Your task to perform on an android device: turn off javascript in the chrome app Image 0: 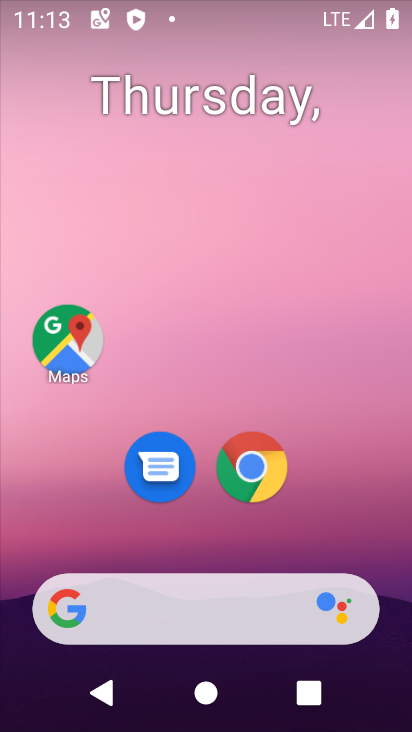
Step 0: click (264, 469)
Your task to perform on an android device: turn off javascript in the chrome app Image 1: 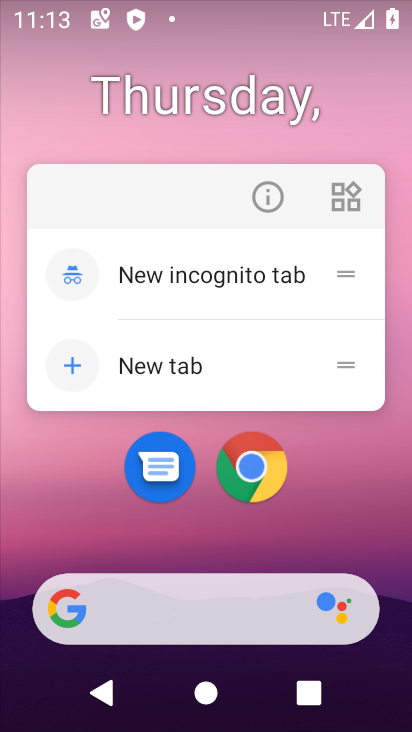
Step 1: click (260, 478)
Your task to perform on an android device: turn off javascript in the chrome app Image 2: 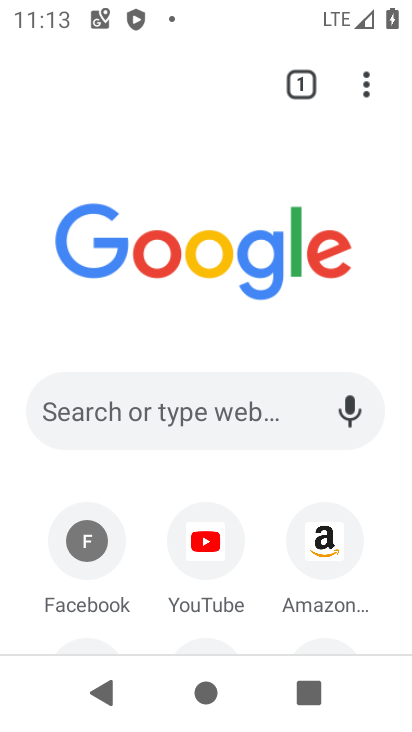
Step 2: drag from (368, 86) to (137, 502)
Your task to perform on an android device: turn off javascript in the chrome app Image 3: 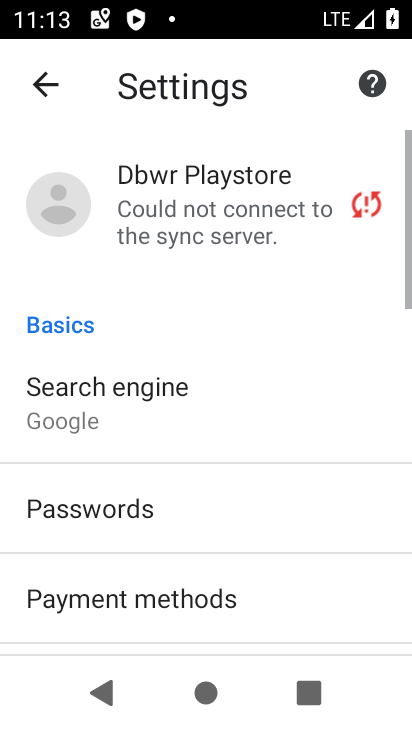
Step 3: drag from (150, 581) to (267, 103)
Your task to perform on an android device: turn off javascript in the chrome app Image 4: 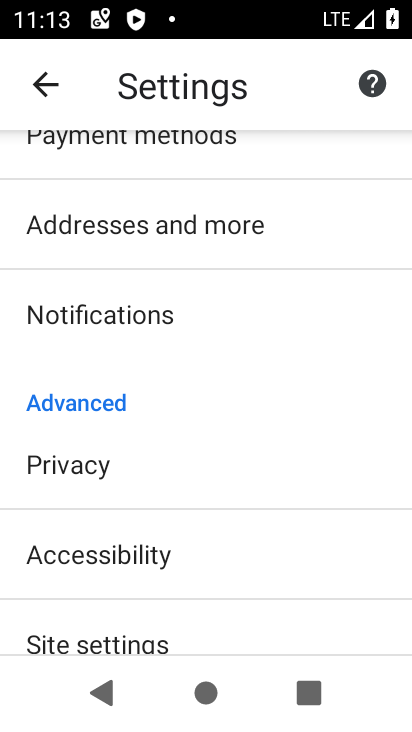
Step 4: click (119, 634)
Your task to perform on an android device: turn off javascript in the chrome app Image 5: 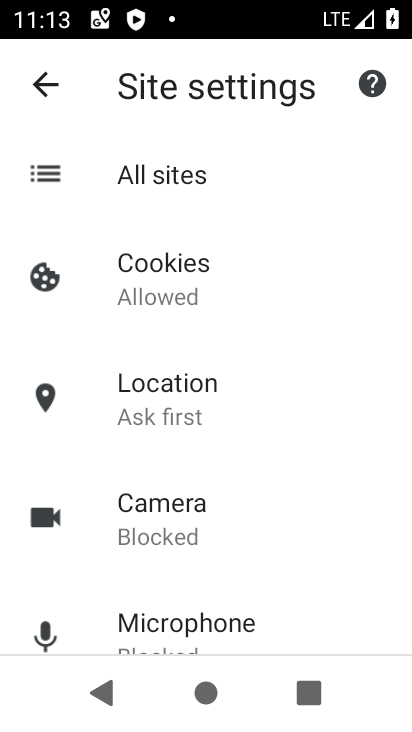
Step 5: drag from (175, 577) to (320, 70)
Your task to perform on an android device: turn off javascript in the chrome app Image 6: 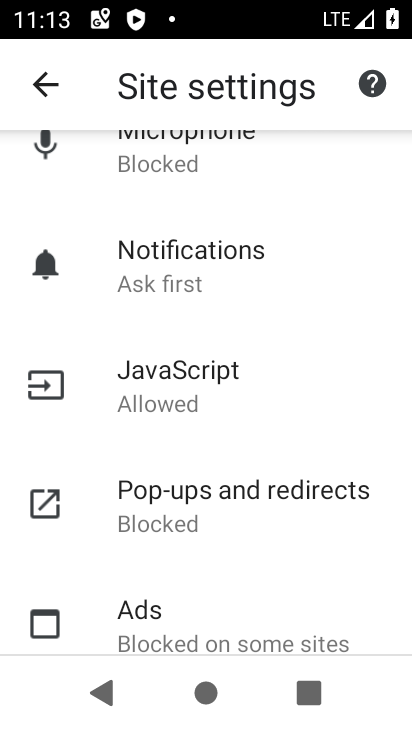
Step 6: click (184, 383)
Your task to perform on an android device: turn off javascript in the chrome app Image 7: 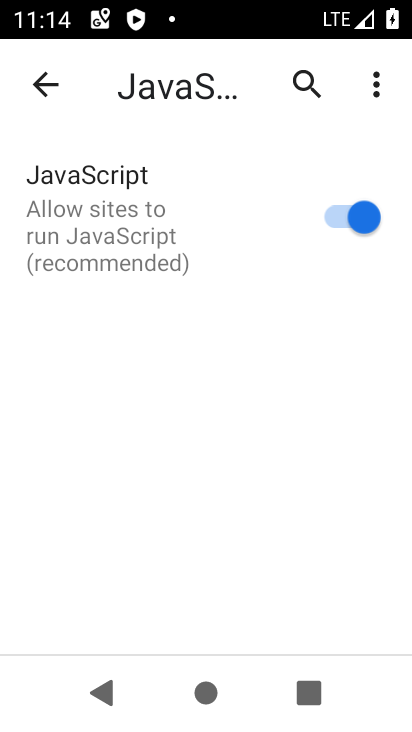
Step 7: click (352, 209)
Your task to perform on an android device: turn off javascript in the chrome app Image 8: 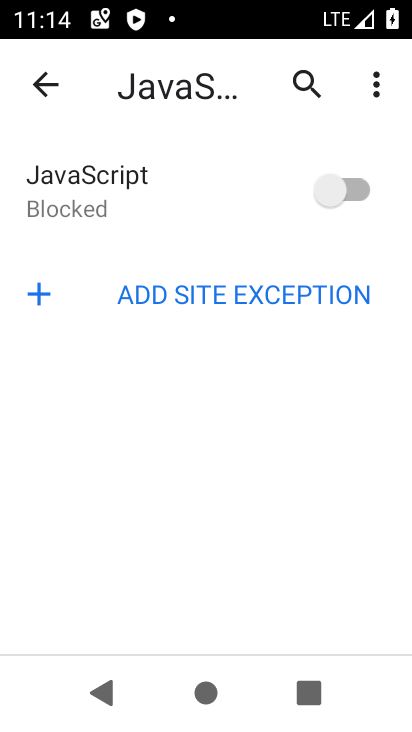
Step 8: task complete